Your task to perform on an android device: Clear all items from cart on target. Add macbook air to the cart on target, then select checkout. Image 0: 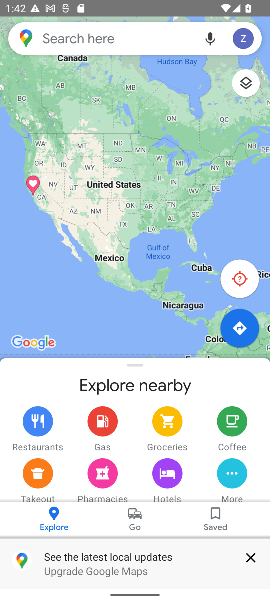
Step 0: press home button
Your task to perform on an android device: Clear all items from cart on target. Add macbook air to the cart on target, then select checkout. Image 1: 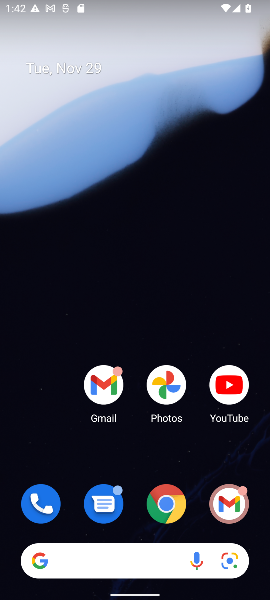
Step 1: click (166, 507)
Your task to perform on an android device: Clear all items from cart on target. Add macbook air to the cart on target, then select checkout. Image 2: 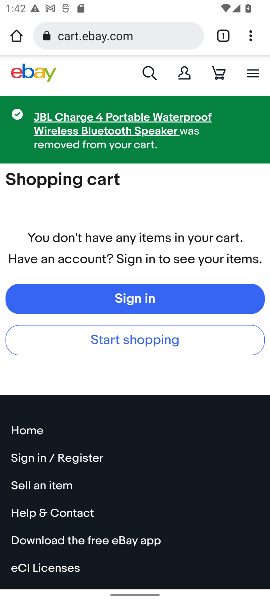
Step 2: click (100, 43)
Your task to perform on an android device: Clear all items from cart on target. Add macbook air to the cart on target, then select checkout. Image 3: 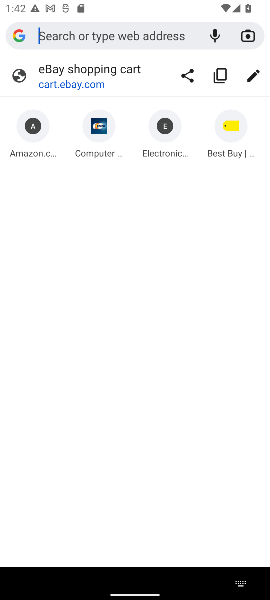
Step 3: type "target.com"
Your task to perform on an android device: Clear all items from cart on target. Add macbook air to the cart on target, then select checkout. Image 4: 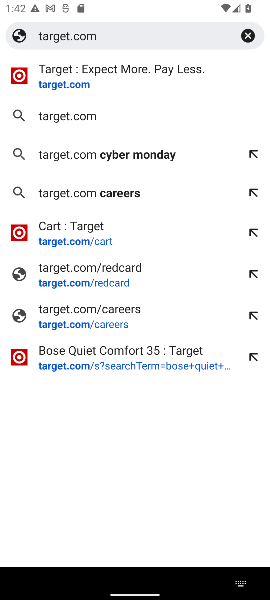
Step 4: click (60, 89)
Your task to perform on an android device: Clear all items from cart on target. Add macbook air to the cart on target, then select checkout. Image 5: 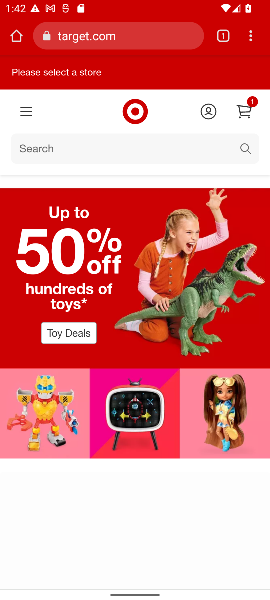
Step 5: click (246, 114)
Your task to perform on an android device: Clear all items from cart on target. Add macbook air to the cart on target, then select checkout. Image 6: 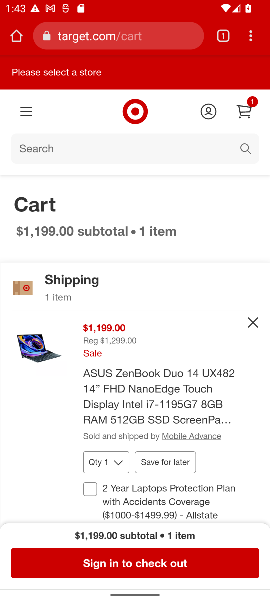
Step 6: click (255, 322)
Your task to perform on an android device: Clear all items from cart on target. Add macbook air to the cart on target, then select checkout. Image 7: 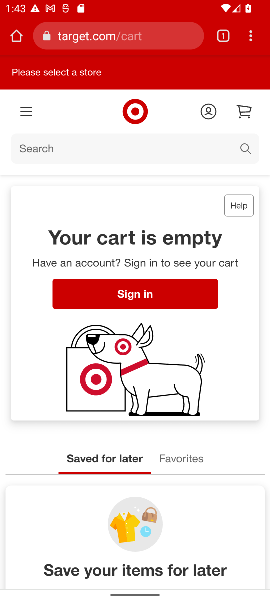
Step 7: click (46, 147)
Your task to perform on an android device: Clear all items from cart on target. Add macbook air to the cart on target, then select checkout. Image 8: 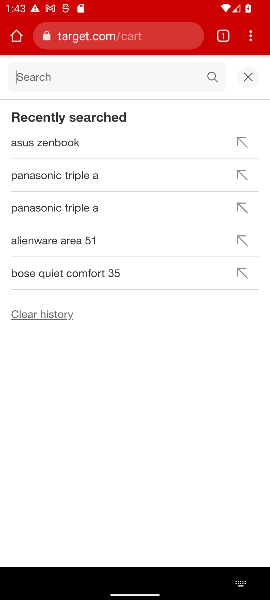
Step 8: type "macbook air"
Your task to perform on an android device: Clear all items from cart on target. Add macbook air to the cart on target, then select checkout. Image 9: 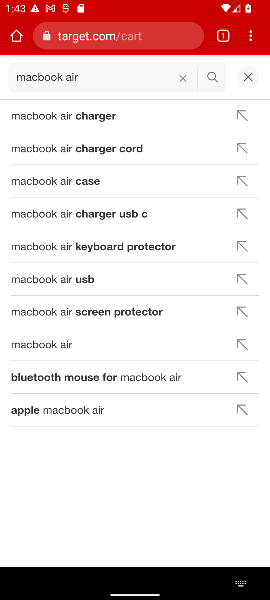
Step 9: click (51, 347)
Your task to perform on an android device: Clear all items from cart on target. Add macbook air to the cart on target, then select checkout. Image 10: 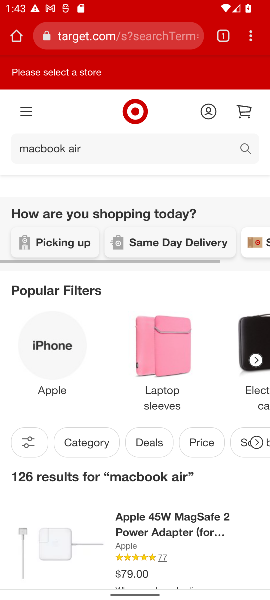
Step 10: drag from (101, 396) to (101, 260)
Your task to perform on an android device: Clear all items from cart on target. Add macbook air to the cart on target, then select checkout. Image 11: 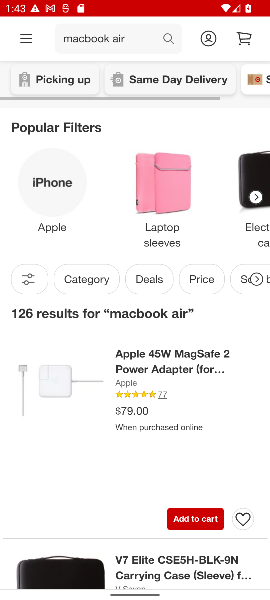
Step 11: drag from (90, 409) to (97, 334)
Your task to perform on an android device: Clear all items from cart on target. Add macbook air to the cart on target, then select checkout. Image 12: 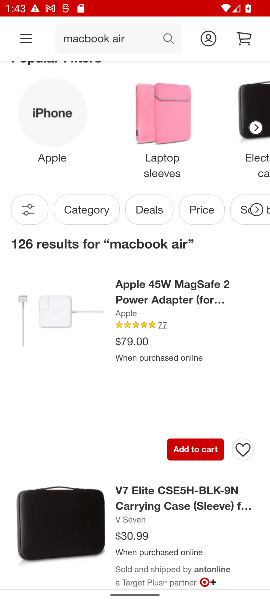
Step 12: click (153, 305)
Your task to perform on an android device: Clear all items from cart on target. Add macbook air to the cart on target, then select checkout. Image 13: 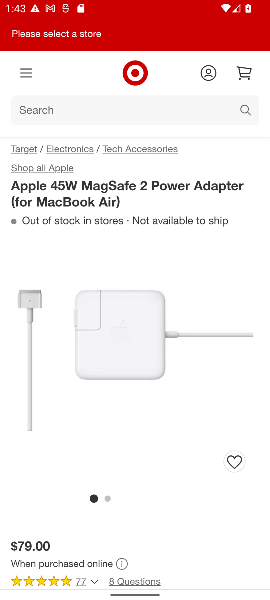
Step 13: drag from (144, 383) to (143, 205)
Your task to perform on an android device: Clear all items from cart on target. Add macbook air to the cart on target, then select checkout. Image 14: 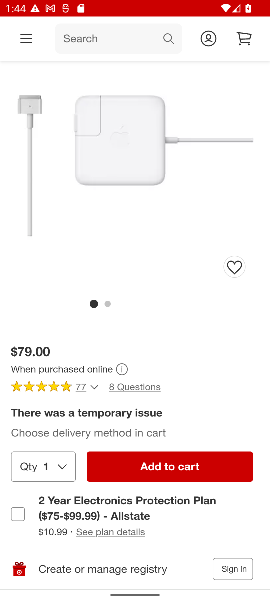
Step 14: drag from (169, 325) to (164, 477)
Your task to perform on an android device: Clear all items from cart on target. Add macbook air to the cart on target, then select checkout. Image 15: 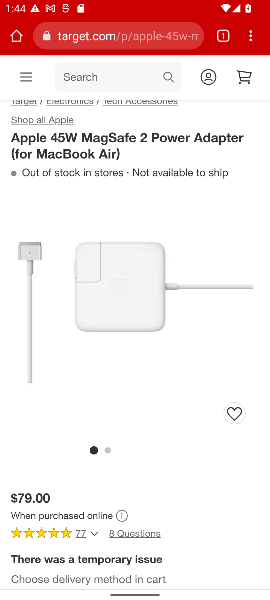
Step 15: drag from (158, 437) to (145, 266)
Your task to perform on an android device: Clear all items from cart on target. Add macbook air to the cart on target, then select checkout. Image 16: 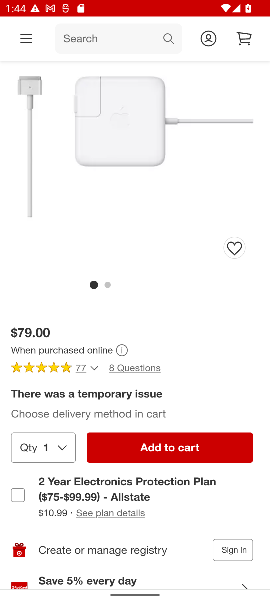
Step 16: click (158, 456)
Your task to perform on an android device: Clear all items from cart on target. Add macbook air to the cart on target, then select checkout. Image 17: 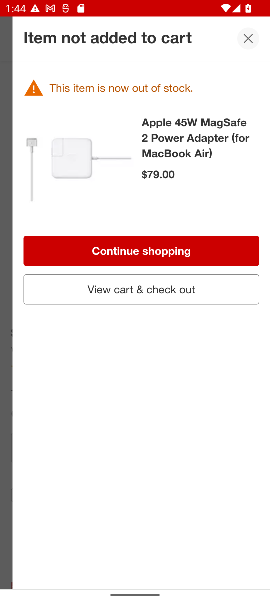
Step 17: click (116, 291)
Your task to perform on an android device: Clear all items from cart on target. Add macbook air to the cart on target, then select checkout. Image 18: 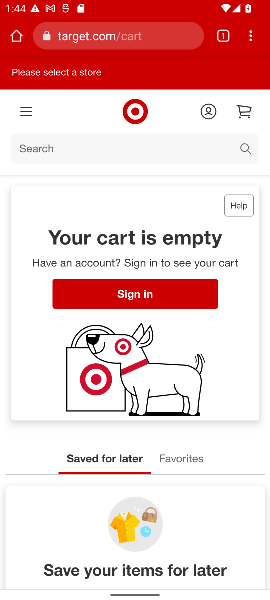
Step 18: task complete